Your task to perform on an android device: turn off location Image 0: 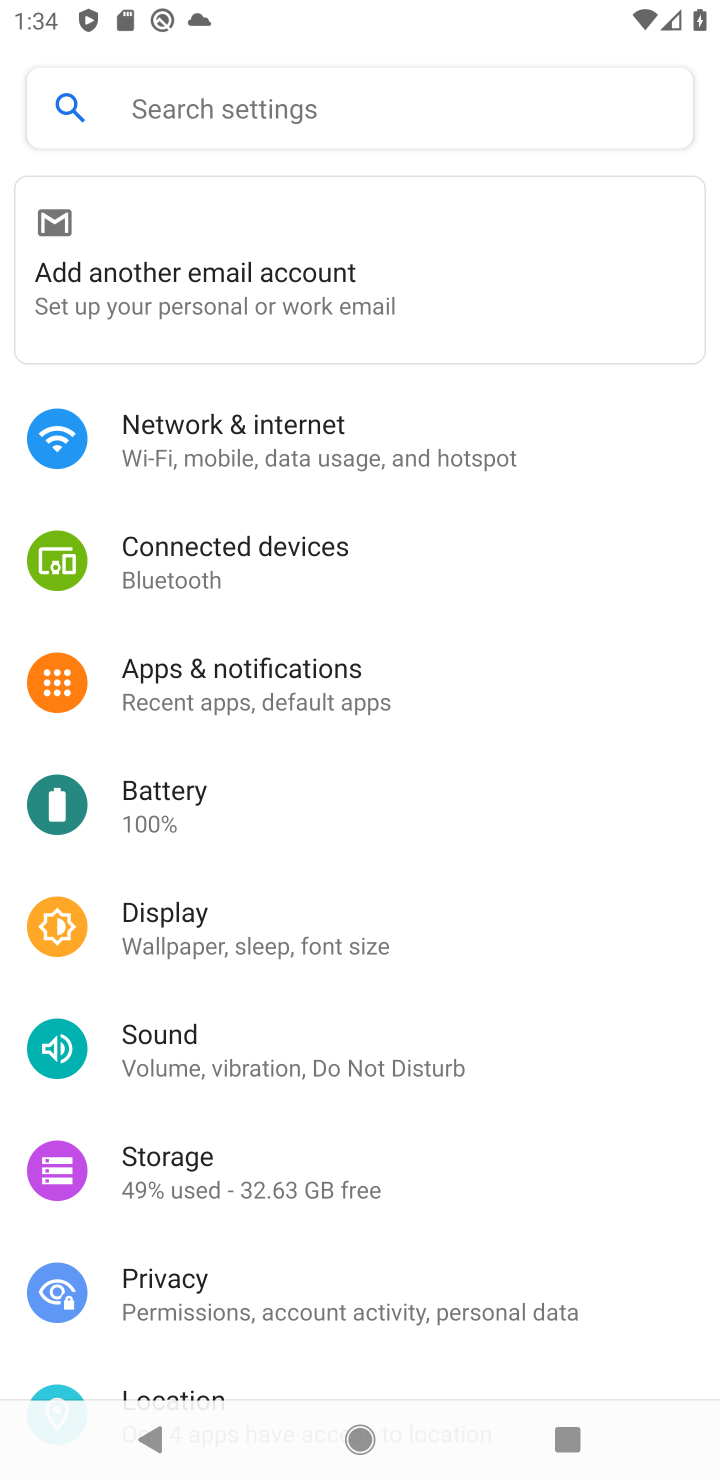
Step 0: press home button
Your task to perform on an android device: turn off location Image 1: 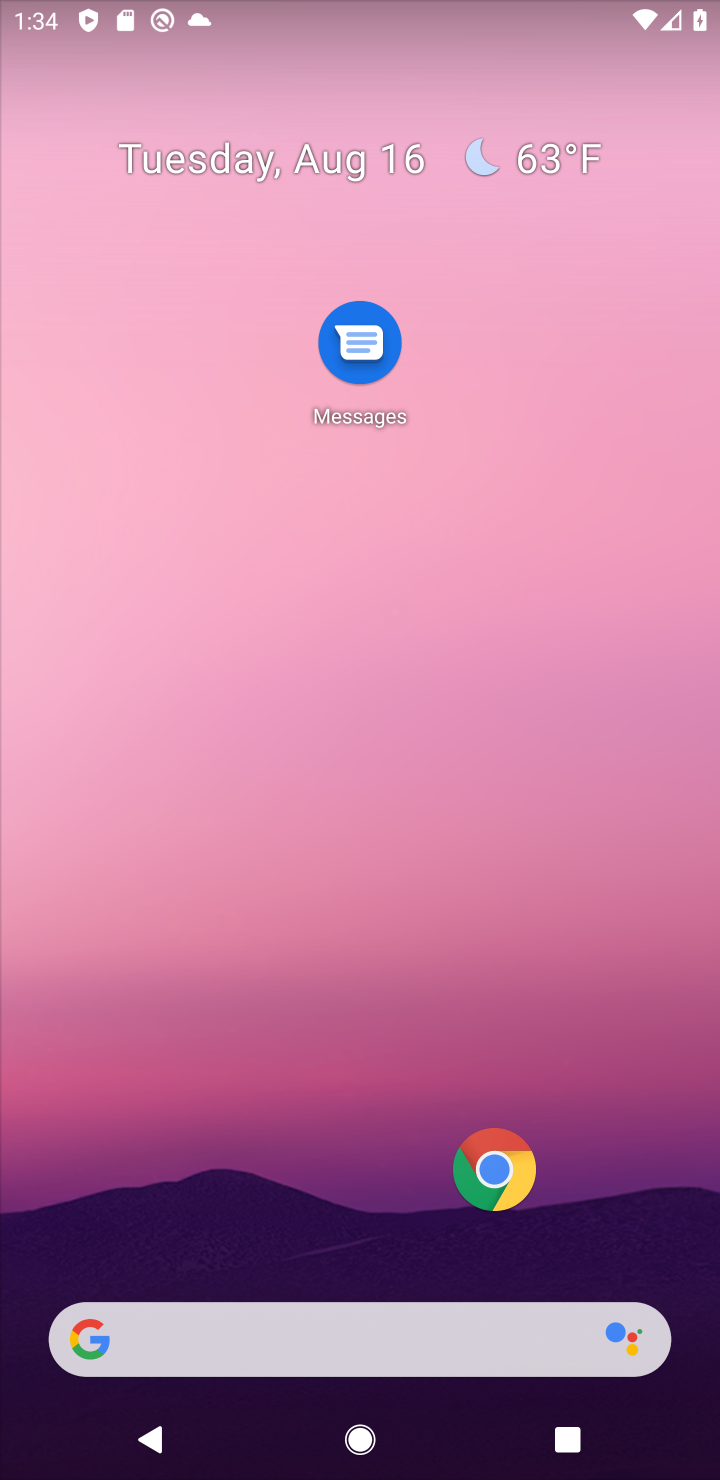
Step 1: drag from (40, 1394) to (607, 90)
Your task to perform on an android device: turn off location Image 2: 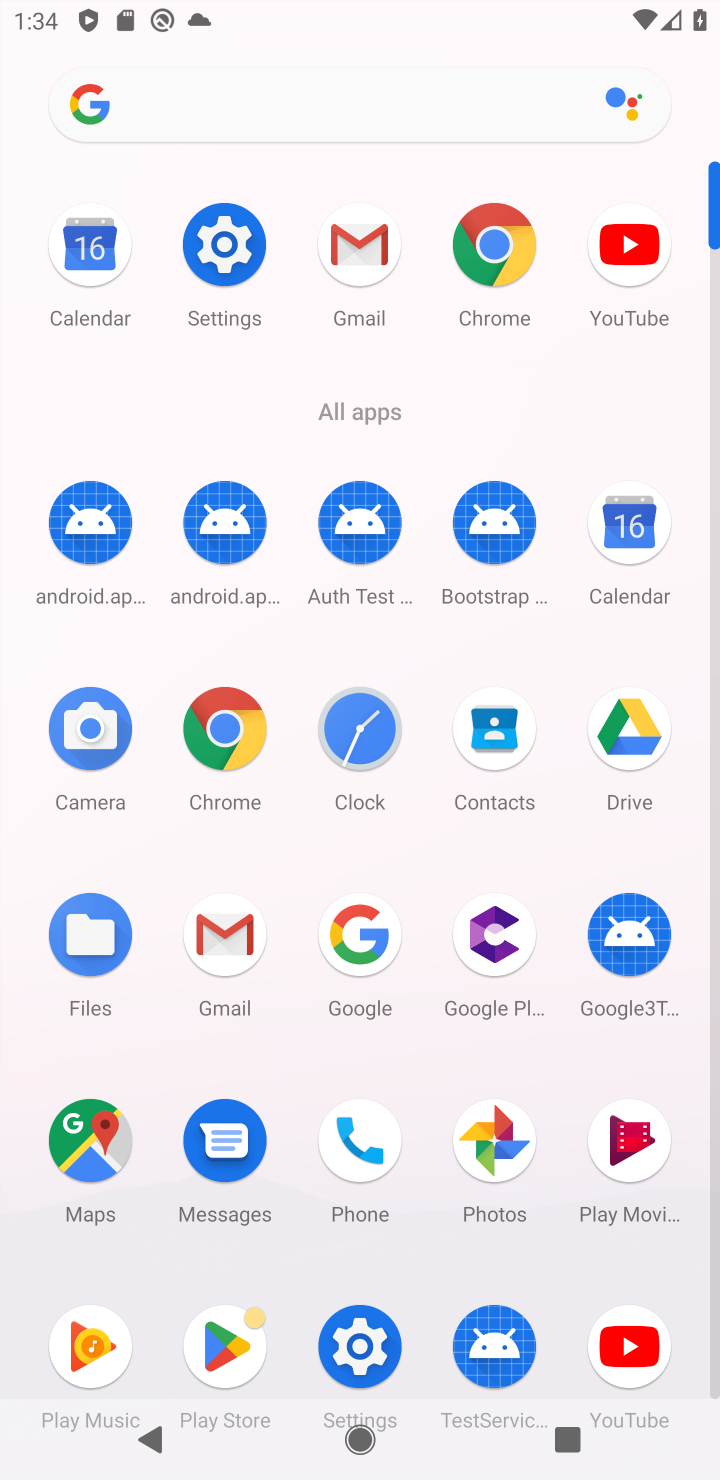
Step 2: click (382, 1336)
Your task to perform on an android device: turn off location Image 3: 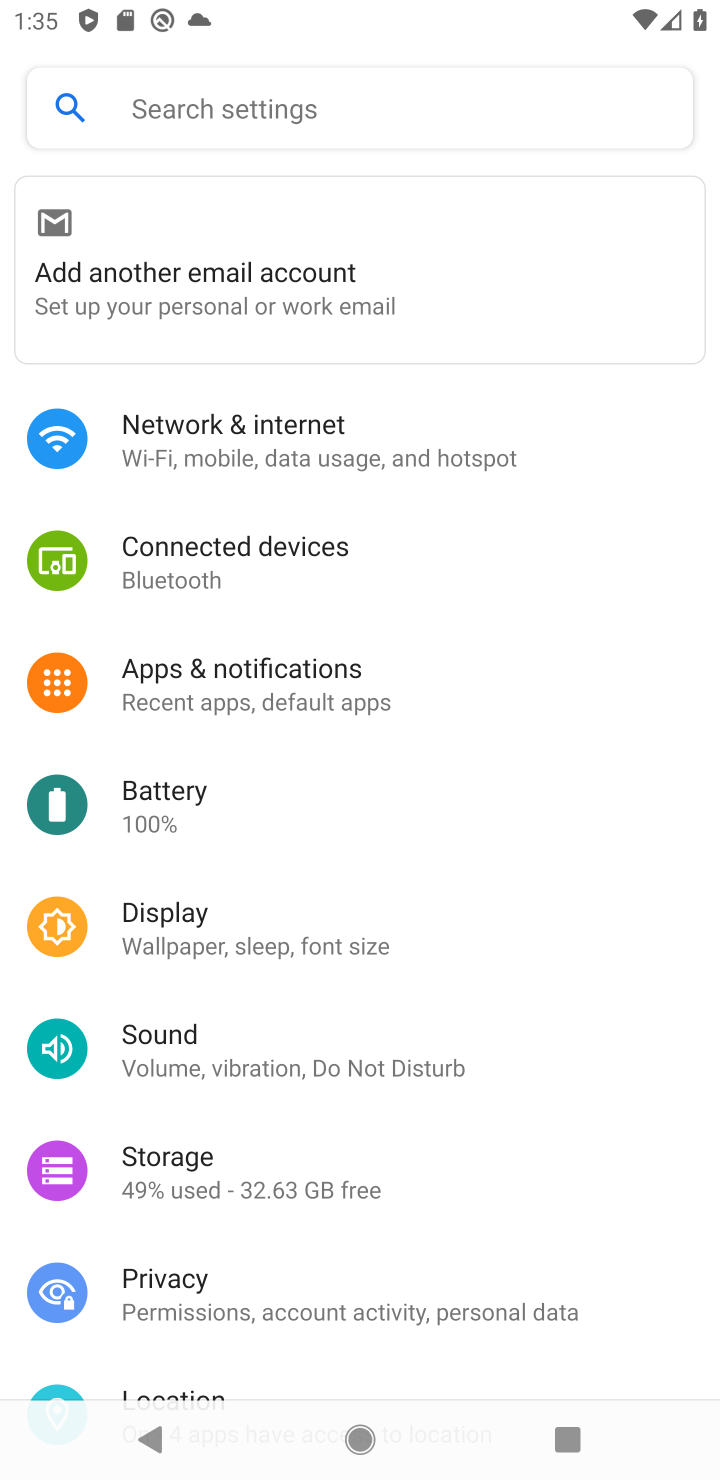
Step 3: drag from (623, 1193) to (472, 554)
Your task to perform on an android device: turn off location Image 4: 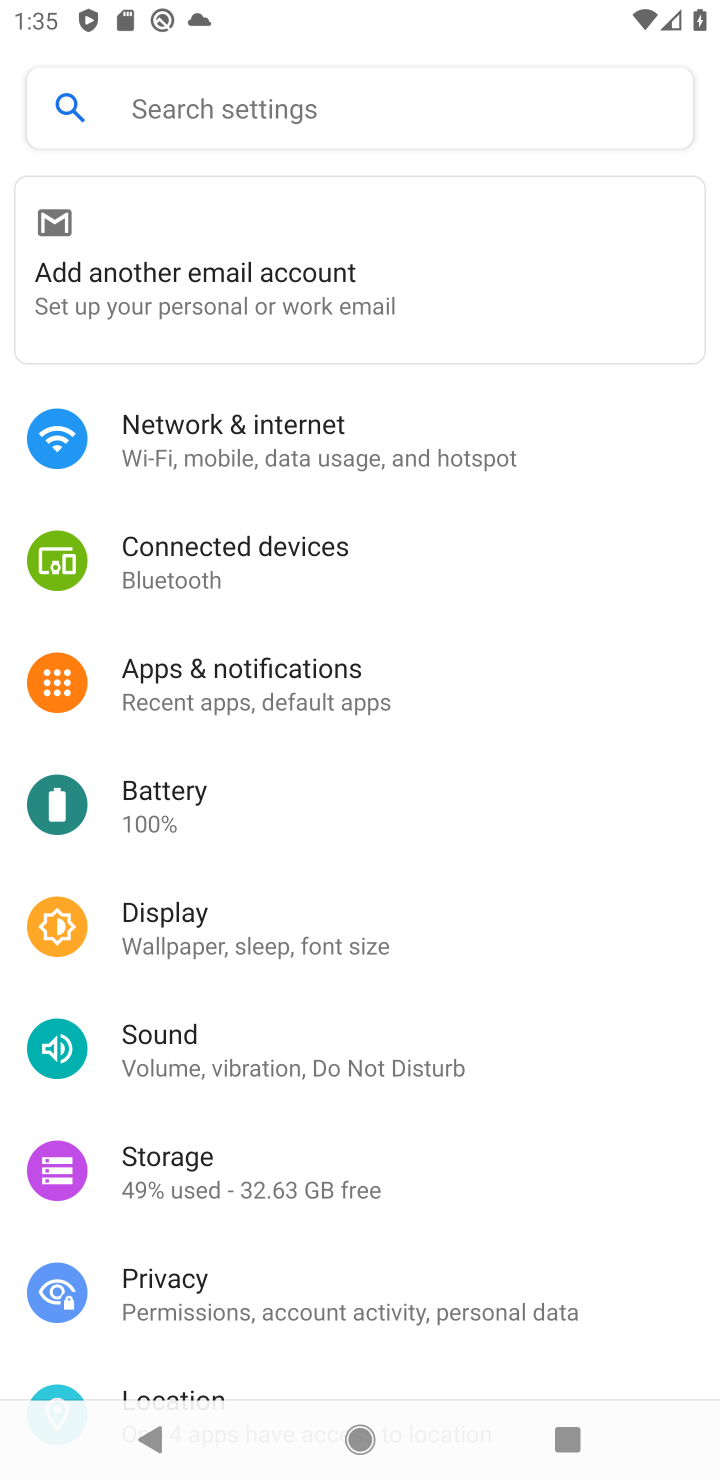
Step 4: drag from (638, 1255) to (596, 302)
Your task to perform on an android device: turn off location Image 5: 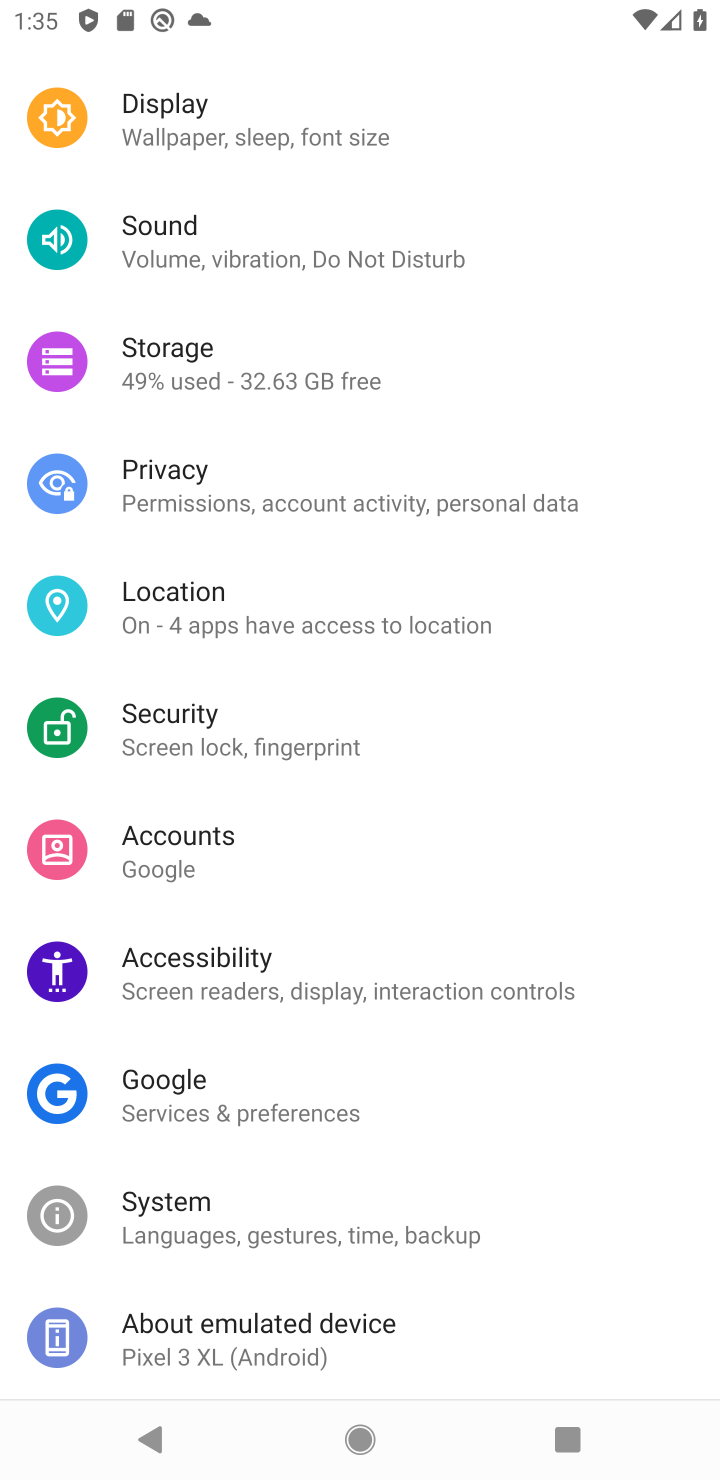
Step 5: click (209, 622)
Your task to perform on an android device: turn off location Image 6: 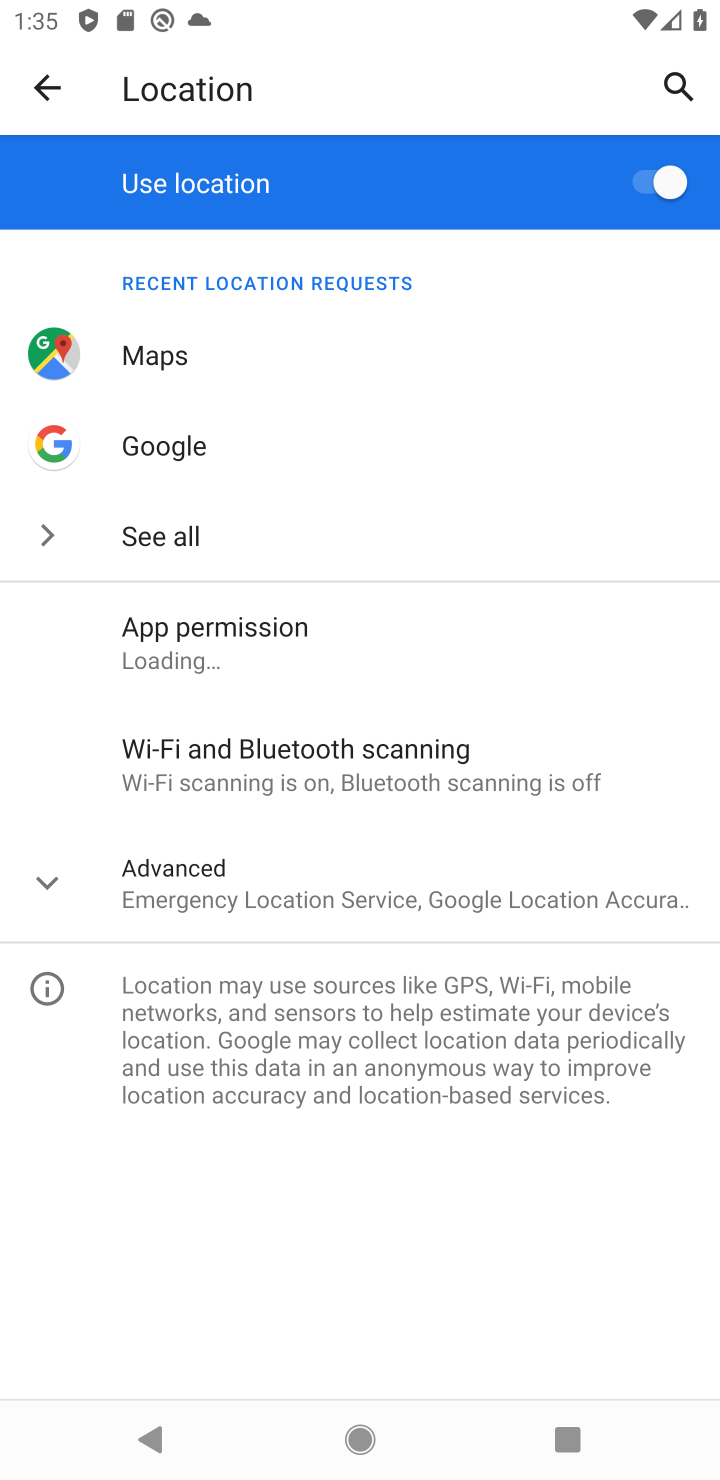
Step 6: click (667, 186)
Your task to perform on an android device: turn off location Image 7: 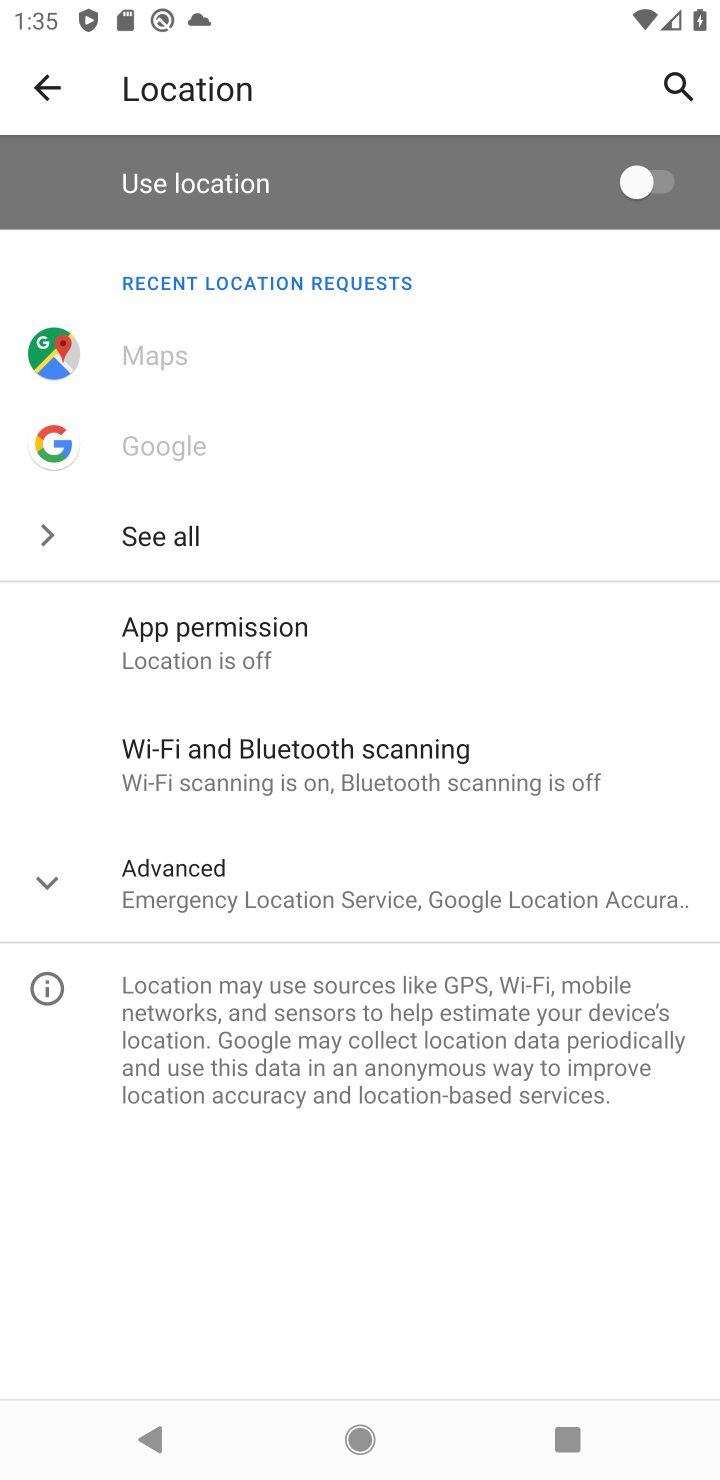
Step 7: task complete